Your task to perform on an android device: Open the Play Movies app and select the watchlist tab. Image 0: 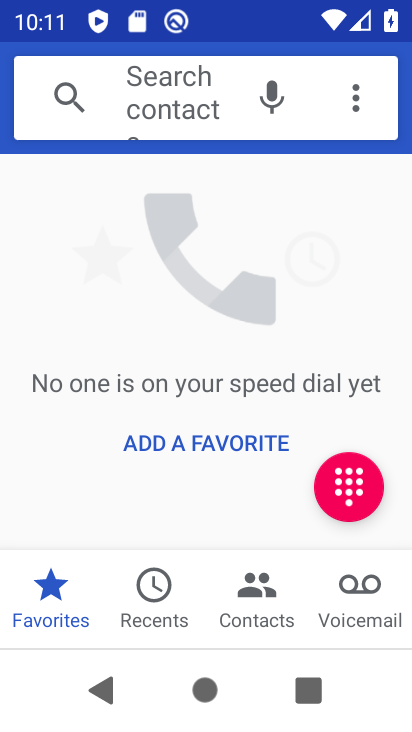
Step 0: press home button
Your task to perform on an android device: Open the Play Movies app and select the watchlist tab. Image 1: 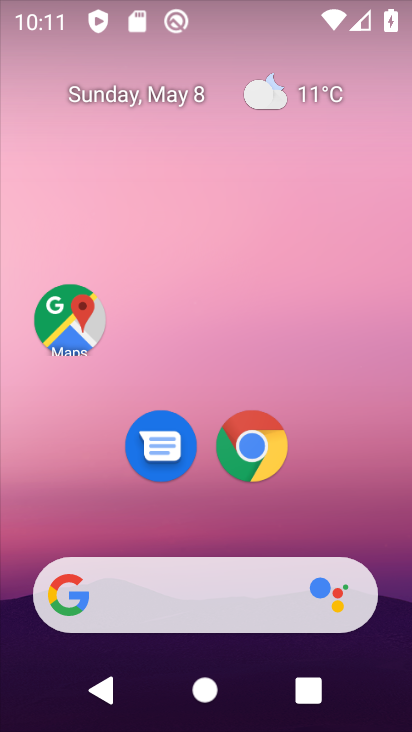
Step 1: drag from (333, 543) to (378, 11)
Your task to perform on an android device: Open the Play Movies app and select the watchlist tab. Image 2: 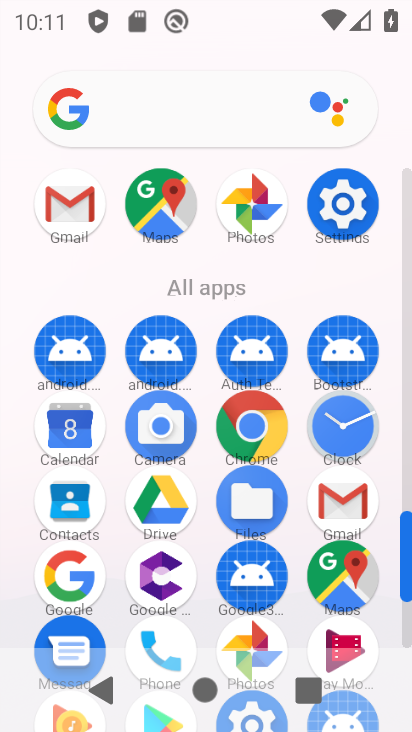
Step 2: drag from (403, 555) to (395, 401)
Your task to perform on an android device: Open the Play Movies app and select the watchlist tab. Image 3: 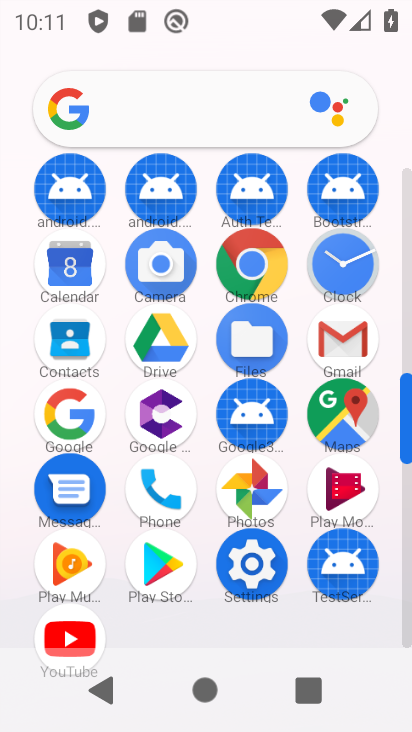
Step 3: click (331, 482)
Your task to perform on an android device: Open the Play Movies app and select the watchlist tab. Image 4: 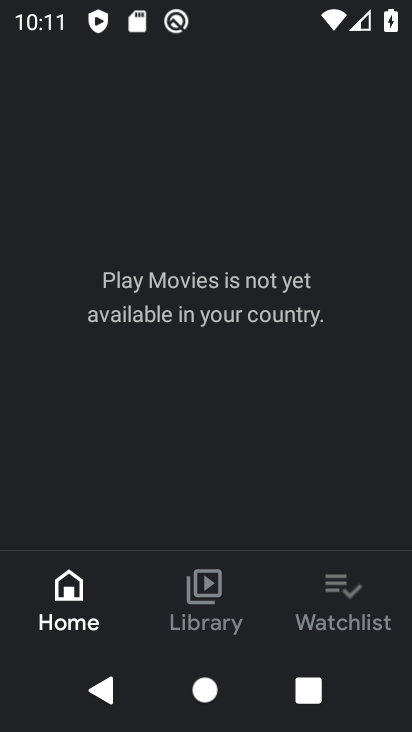
Step 4: click (357, 614)
Your task to perform on an android device: Open the Play Movies app and select the watchlist tab. Image 5: 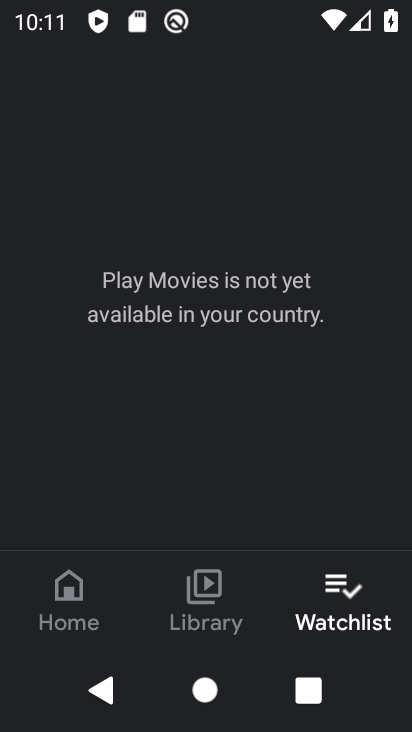
Step 5: task complete